Your task to perform on an android device: Go to Android settings Image 0: 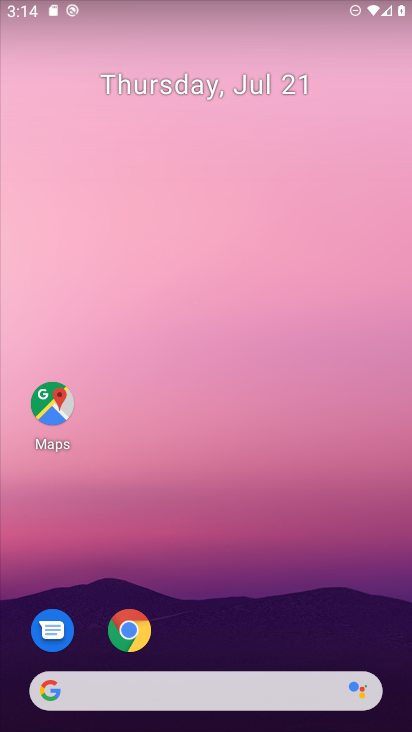
Step 0: drag from (209, 657) to (301, 12)
Your task to perform on an android device: Go to Android settings Image 1: 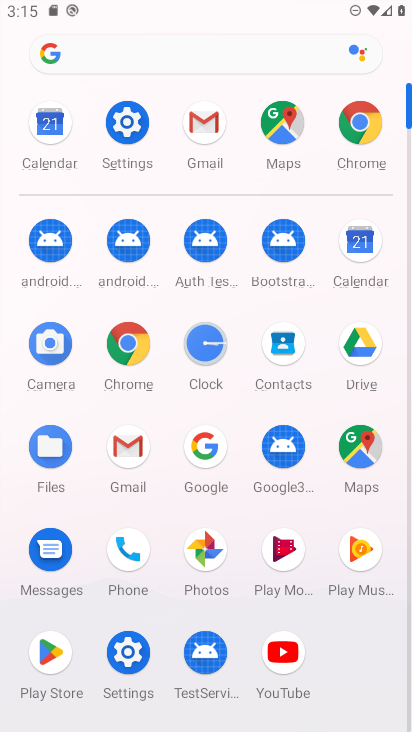
Step 1: click (122, 126)
Your task to perform on an android device: Go to Android settings Image 2: 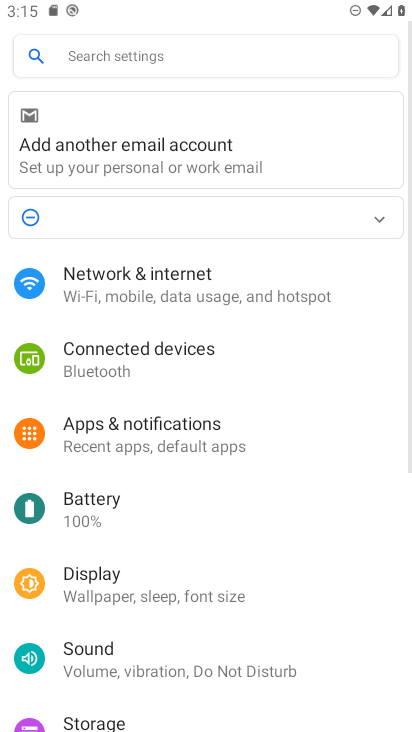
Step 2: drag from (111, 672) to (281, 51)
Your task to perform on an android device: Go to Android settings Image 3: 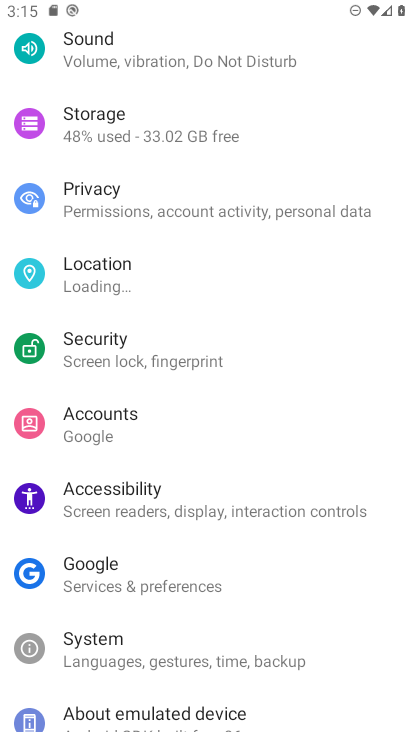
Step 3: drag from (171, 624) to (244, 15)
Your task to perform on an android device: Go to Android settings Image 4: 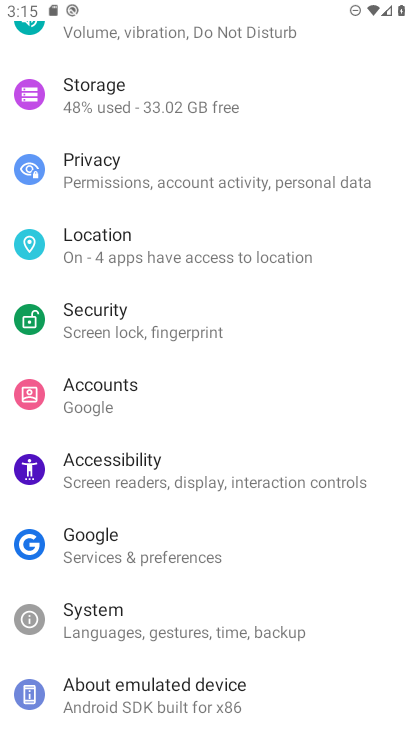
Step 4: click (120, 690)
Your task to perform on an android device: Go to Android settings Image 5: 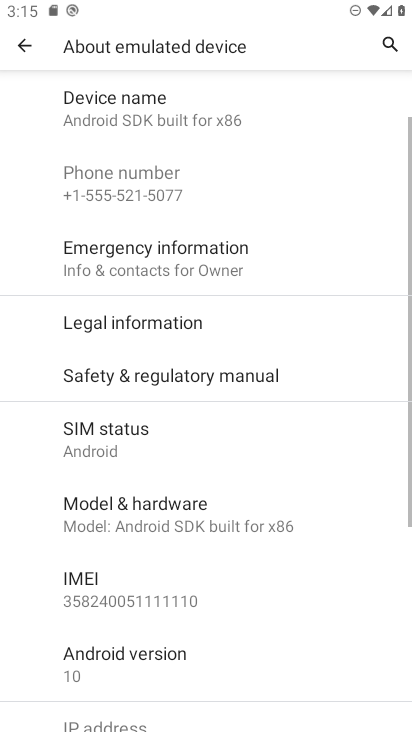
Step 5: task complete